Your task to perform on an android device: check the backup settings in the google photos Image 0: 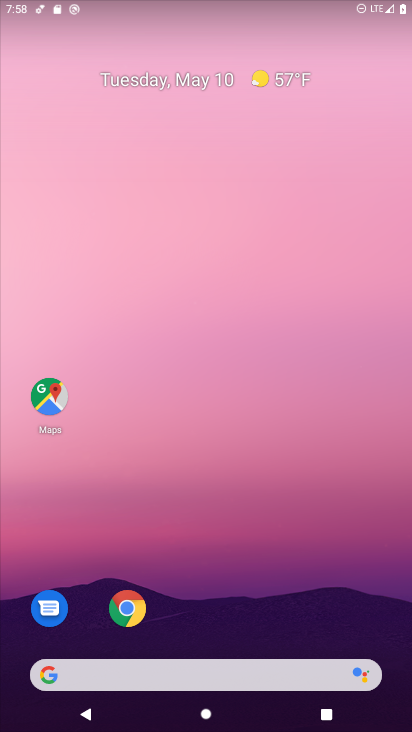
Step 0: drag from (388, 617) to (270, 63)
Your task to perform on an android device: check the backup settings in the google photos Image 1: 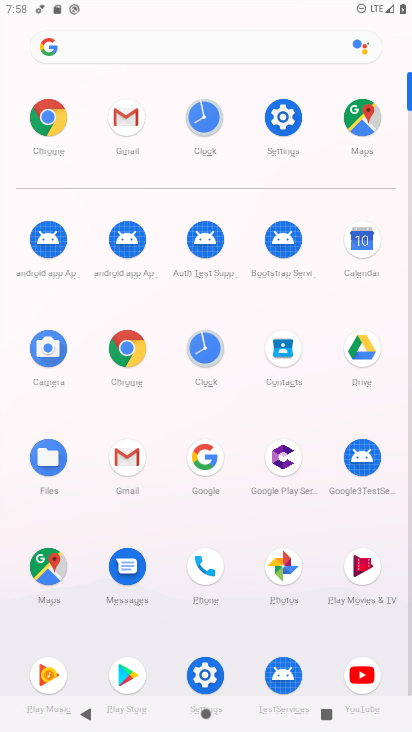
Step 1: click (291, 580)
Your task to perform on an android device: check the backup settings in the google photos Image 2: 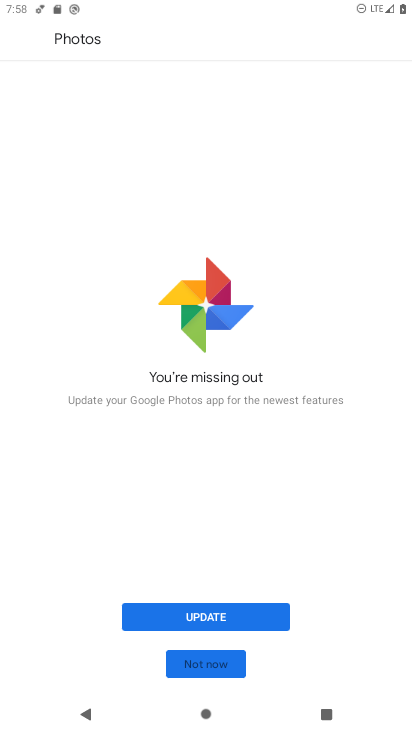
Step 2: click (218, 620)
Your task to perform on an android device: check the backup settings in the google photos Image 3: 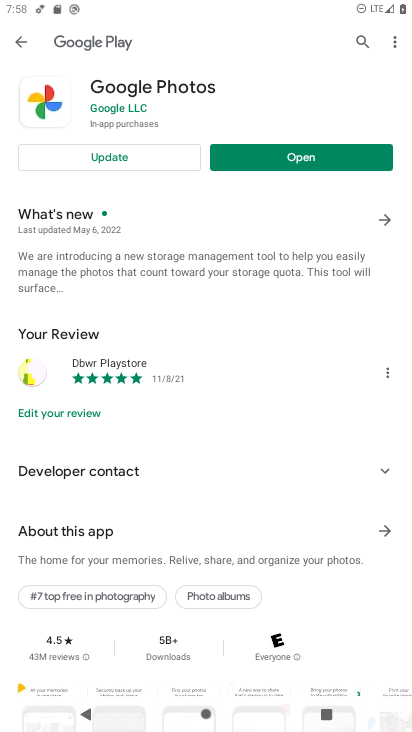
Step 3: click (122, 153)
Your task to perform on an android device: check the backup settings in the google photos Image 4: 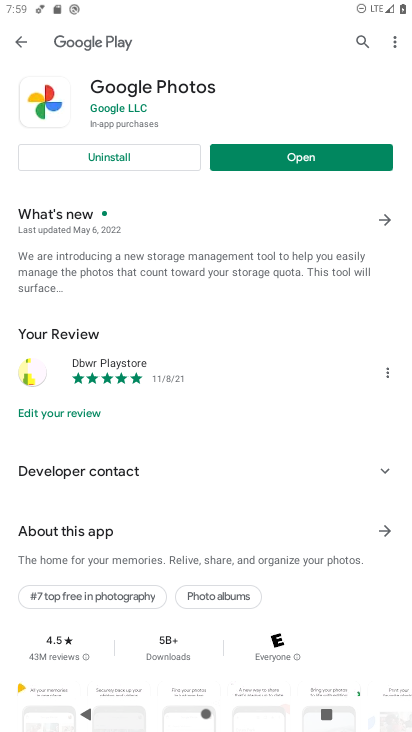
Step 4: click (319, 153)
Your task to perform on an android device: check the backup settings in the google photos Image 5: 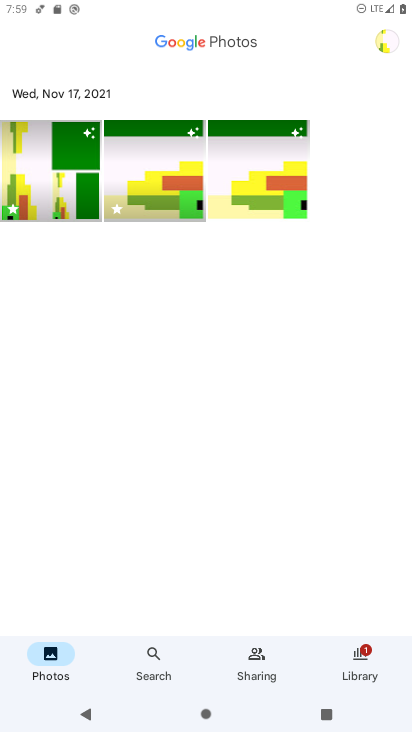
Step 5: click (391, 30)
Your task to perform on an android device: check the backup settings in the google photos Image 6: 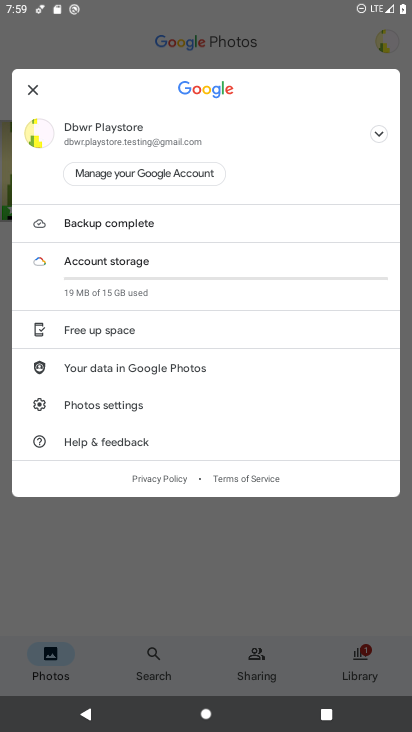
Step 6: click (133, 398)
Your task to perform on an android device: check the backup settings in the google photos Image 7: 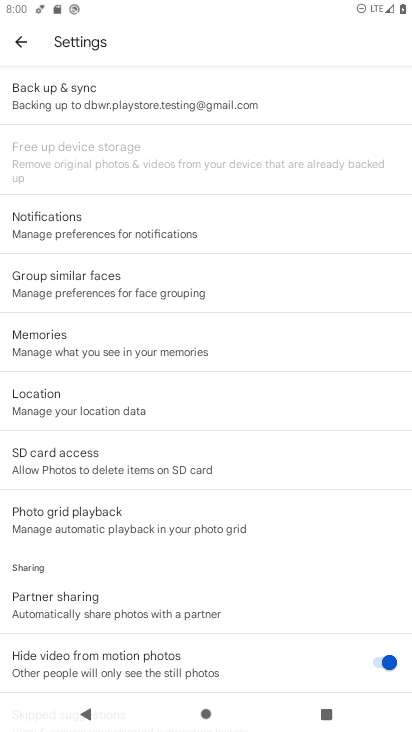
Step 7: click (189, 99)
Your task to perform on an android device: check the backup settings in the google photos Image 8: 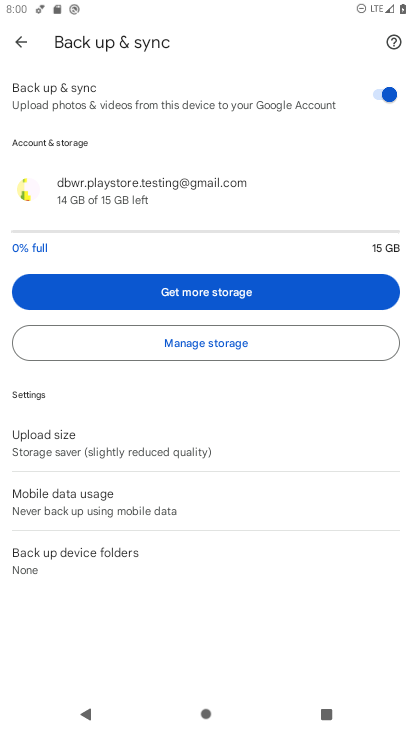
Step 8: task complete